Your task to perform on an android device: check google app version Image 0: 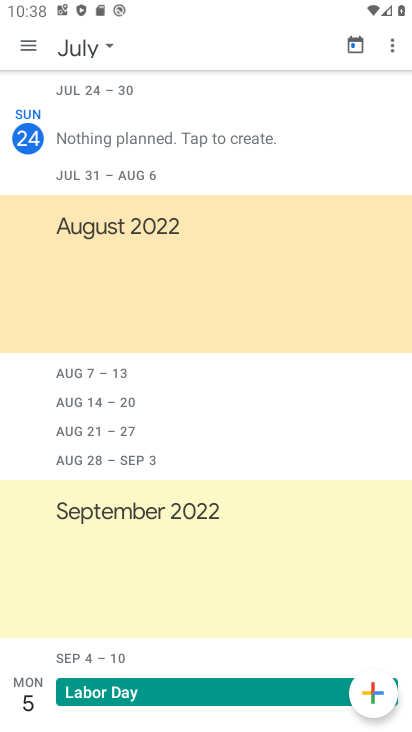
Step 0: press home button
Your task to perform on an android device: check google app version Image 1: 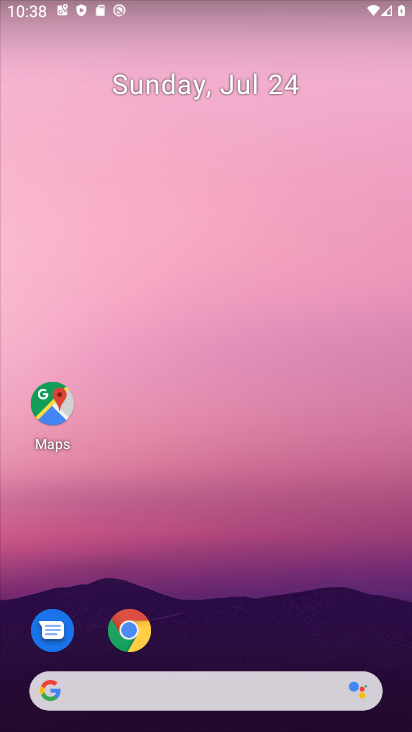
Step 1: drag from (210, 646) to (280, 26)
Your task to perform on an android device: check google app version Image 2: 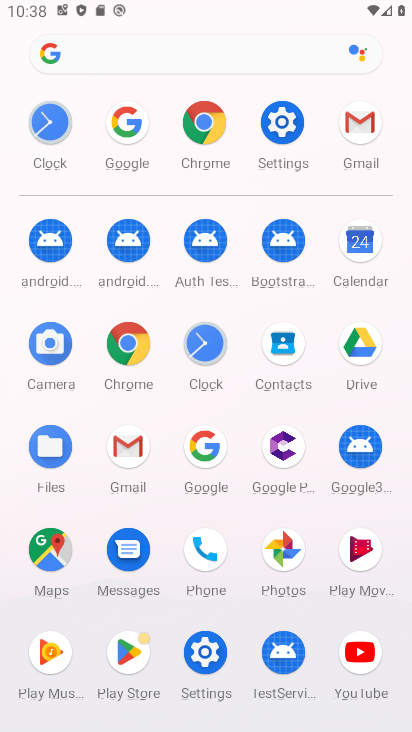
Step 2: click (135, 134)
Your task to perform on an android device: check google app version Image 3: 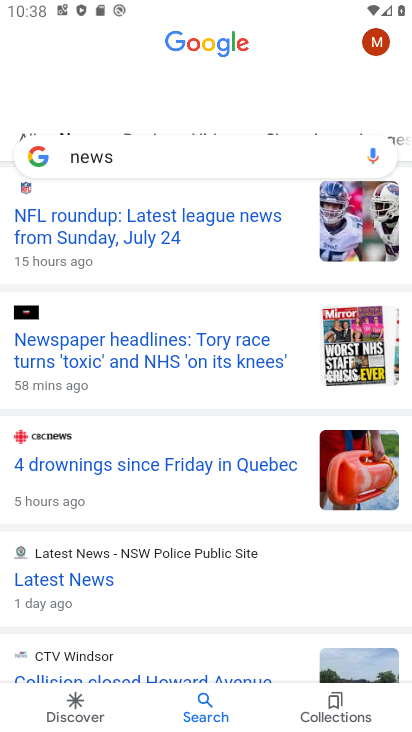
Step 3: click (375, 46)
Your task to perform on an android device: check google app version Image 4: 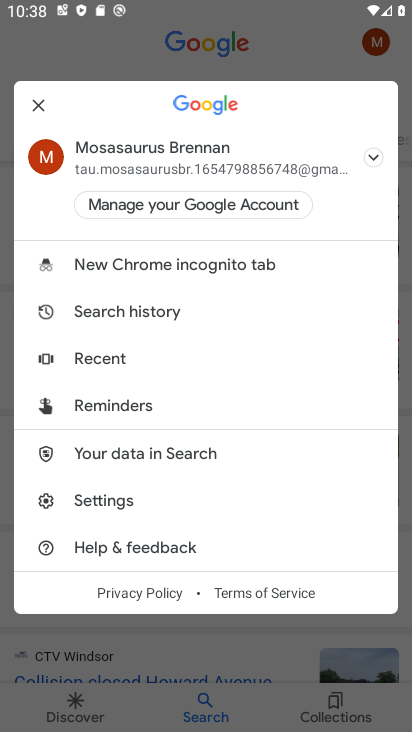
Step 4: click (113, 512)
Your task to perform on an android device: check google app version Image 5: 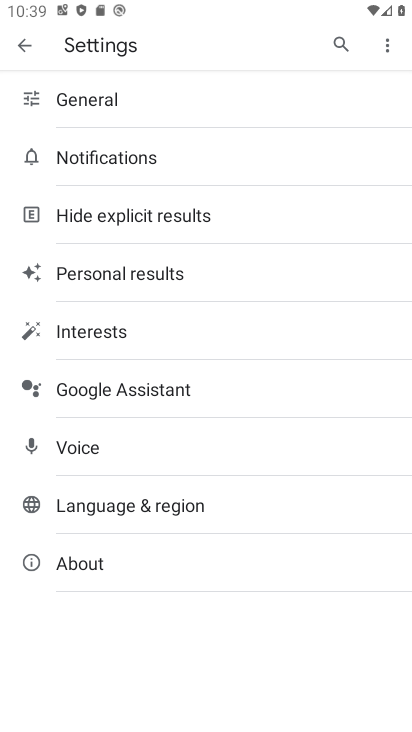
Step 5: click (111, 547)
Your task to perform on an android device: check google app version Image 6: 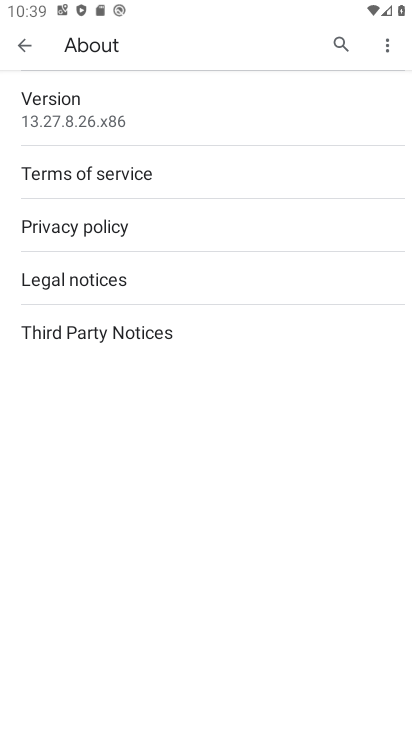
Step 6: click (111, 95)
Your task to perform on an android device: check google app version Image 7: 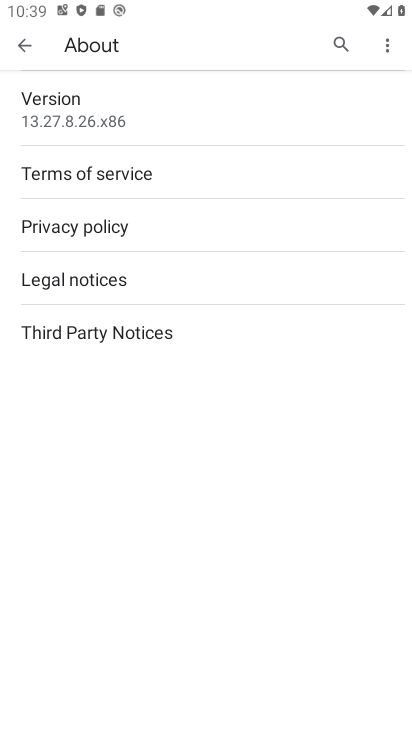
Step 7: click (111, 95)
Your task to perform on an android device: check google app version Image 8: 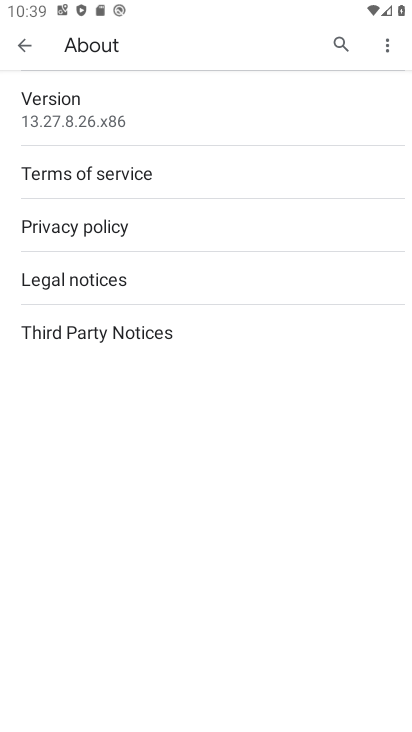
Step 8: task complete